Your task to perform on an android device: move an email to a new category in the gmail app Image 0: 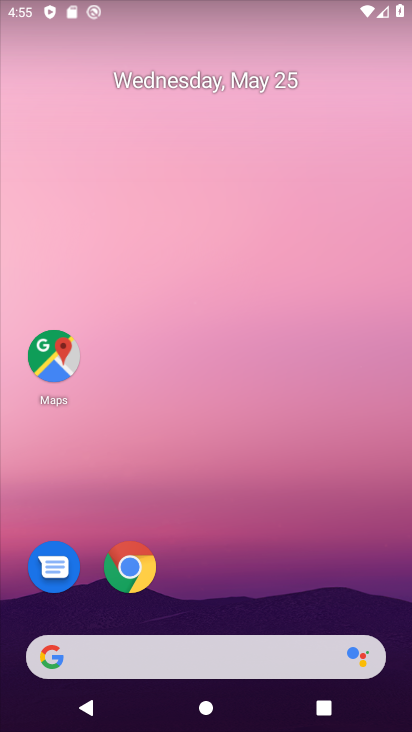
Step 0: drag from (289, 554) to (241, 72)
Your task to perform on an android device: move an email to a new category in the gmail app Image 1: 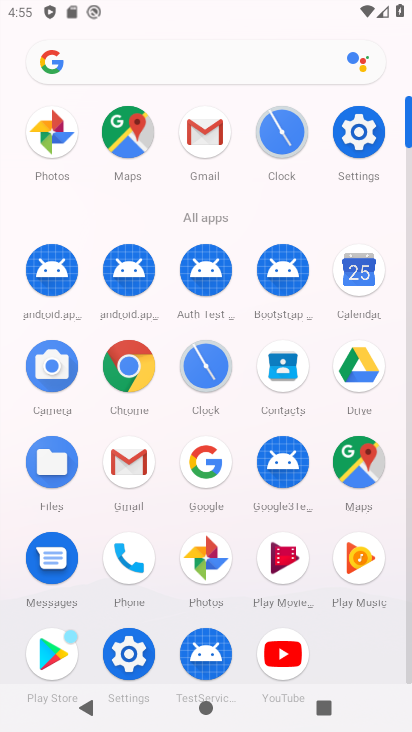
Step 1: drag from (5, 575) to (18, 247)
Your task to perform on an android device: move an email to a new category in the gmail app Image 2: 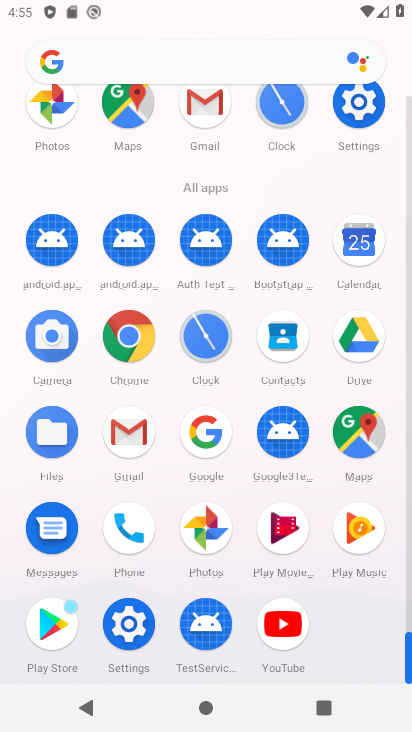
Step 2: drag from (7, 604) to (22, 320)
Your task to perform on an android device: move an email to a new category in the gmail app Image 3: 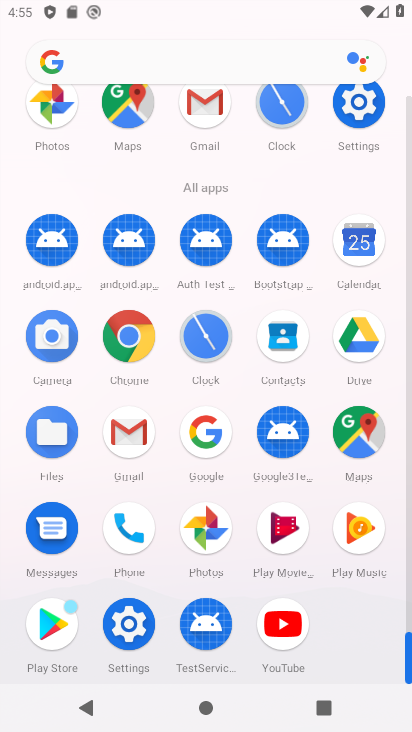
Step 3: drag from (3, 591) to (10, 270)
Your task to perform on an android device: move an email to a new category in the gmail app Image 4: 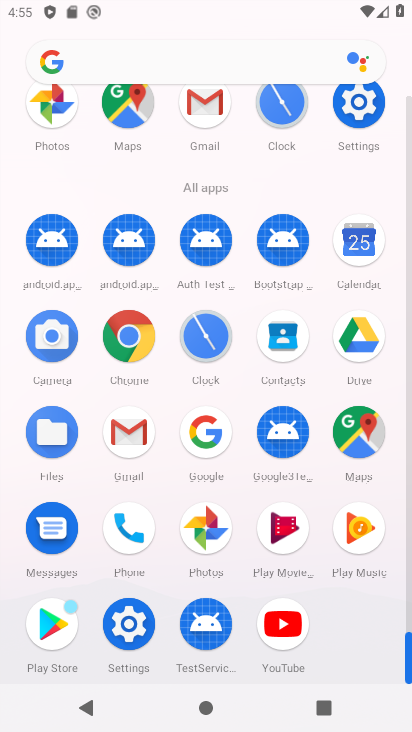
Step 4: click (134, 429)
Your task to perform on an android device: move an email to a new category in the gmail app Image 5: 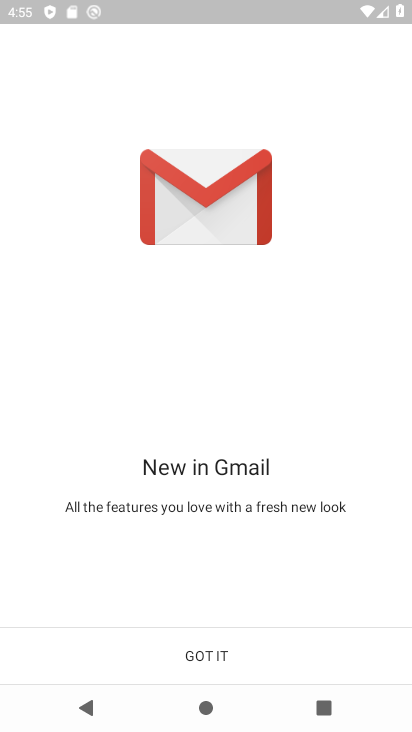
Step 5: click (178, 660)
Your task to perform on an android device: move an email to a new category in the gmail app Image 6: 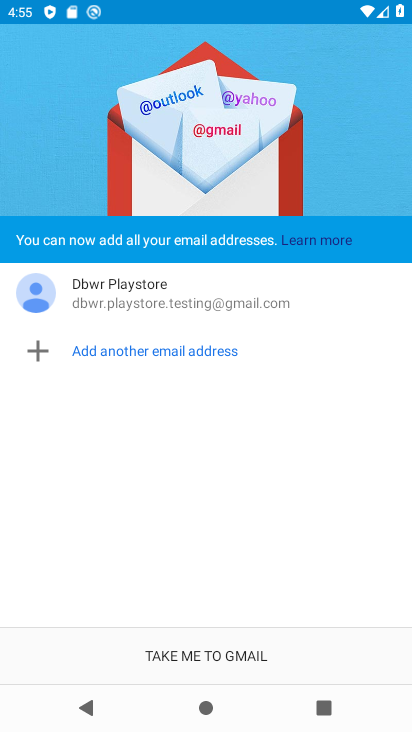
Step 6: click (187, 652)
Your task to perform on an android device: move an email to a new category in the gmail app Image 7: 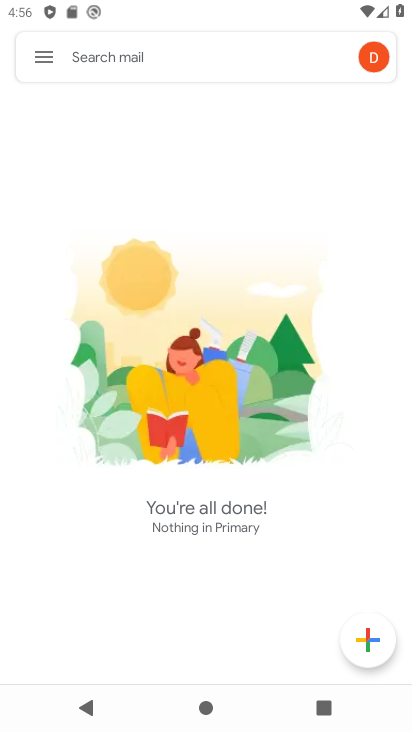
Step 7: click (45, 45)
Your task to perform on an android device: move an email to a new category in the gmail app Image 8: 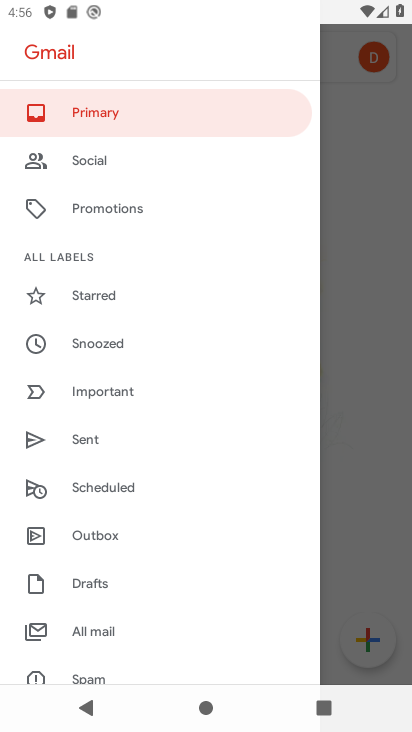
Step 8: drag from (175, 548) to (189, 119)
Your task to perform on an android device: move an email to a new category in the gmail app Image 9: 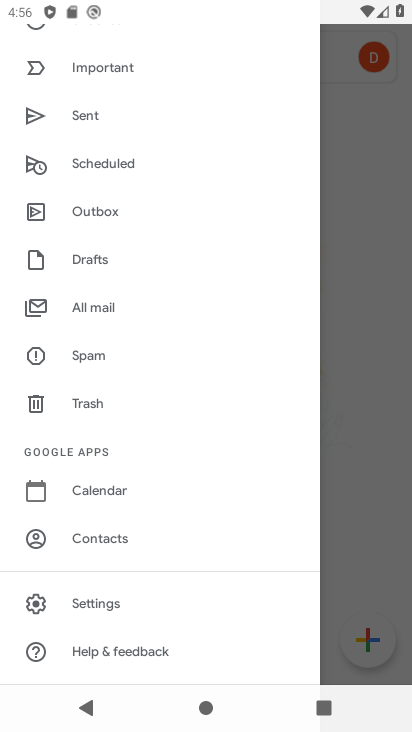
Step 9: drag from (128, 490) to (158, 179)
Your task to perform on an android device: move an email to a new category in the gmail app Image 10: 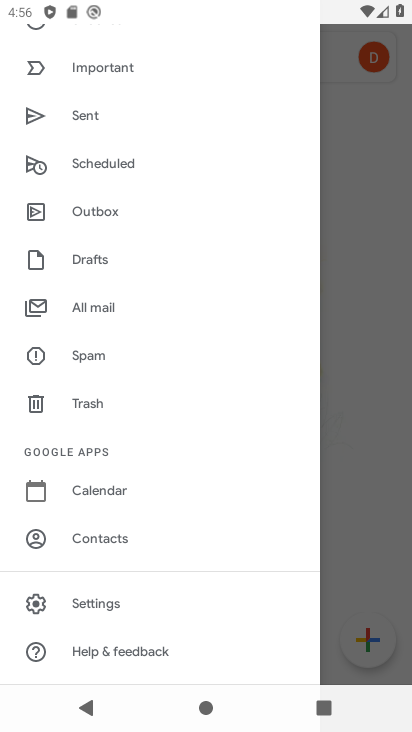
Step 10: drag from (143, 547) to (152, 240)
Your task to perform on an android device: move an email to a new category in the gmail app Image 11: 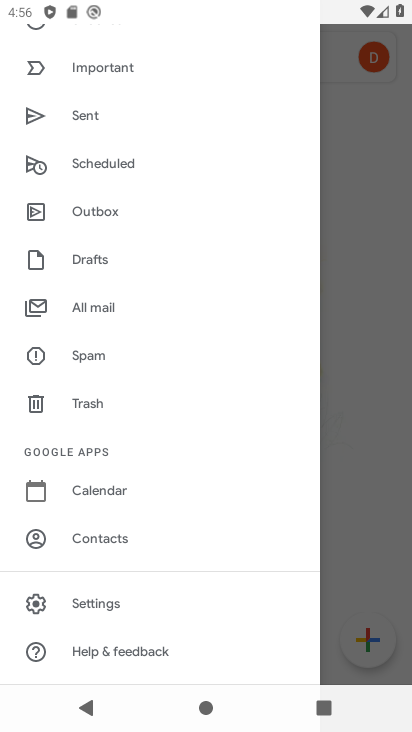
Step 11: click (113, 305)
Your task to perform on an android device: move an email to a new category in the gmail app Image 12: 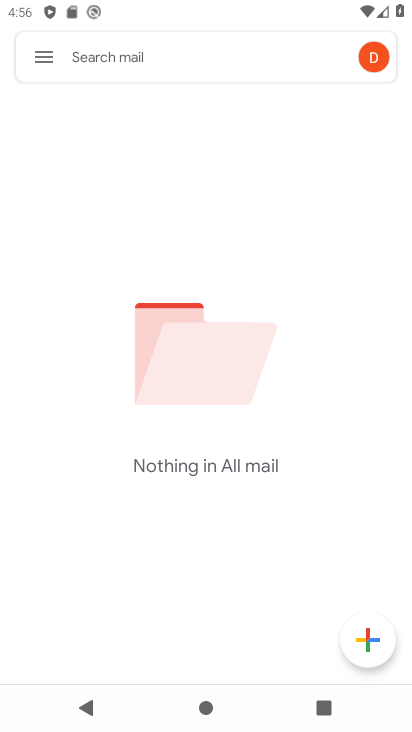
Step 12: click (45, 49)
Your task to perform on an android device: move an email to a new category in the gmail app Image 13: 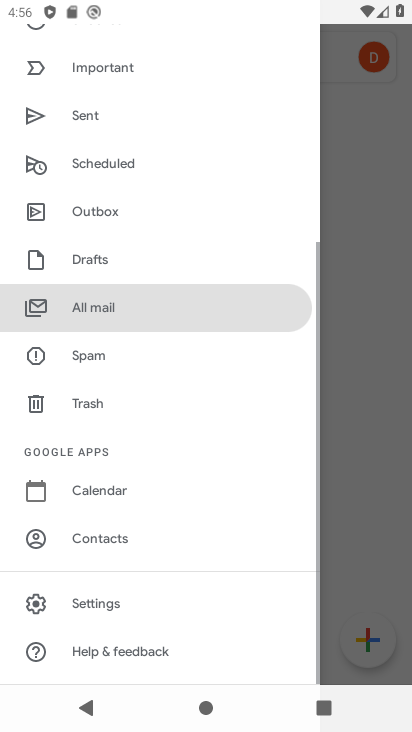
Step 13: drag from (142, 103) to (173, 511)
Your task to perform on an android device: move an email to a new category in the gmail app Image 14: 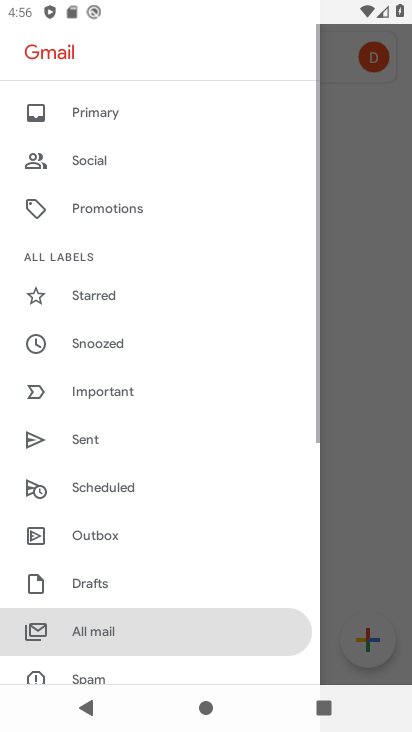
Step 14: click (121, 115)
Your task to perform on an android device: move an email to a new category in the gmail app Image 15: 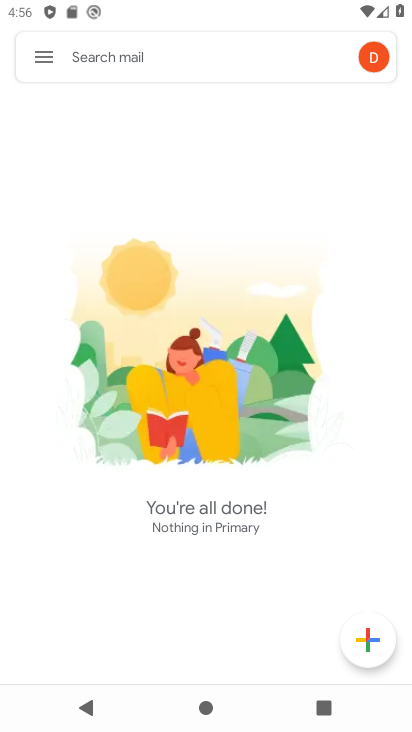
Step 15: click (49, 47)
Your task to perform on an android device: move an email to a new category in the gmail app Image 16: 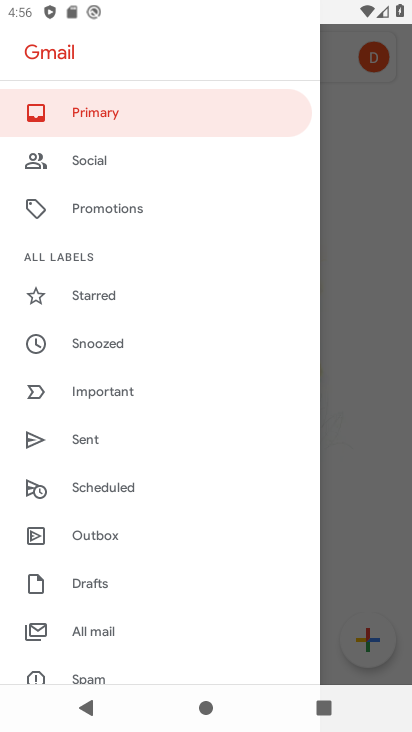
Step 16: click (125, 284)
Your task to perform on an android device: move an email to a new category in the gmail app Image 17: 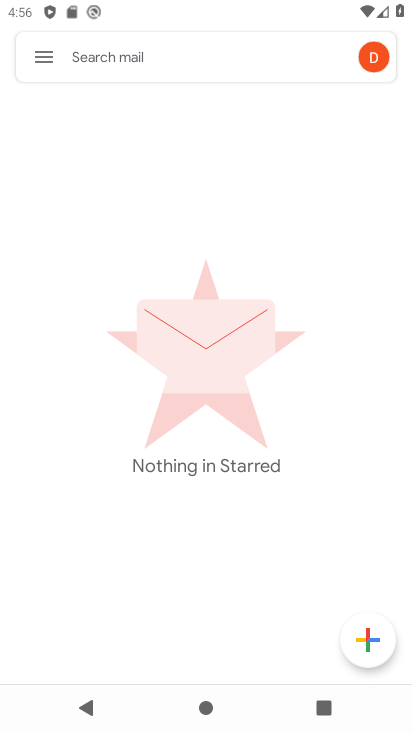
Step 17: click (36, 52)
Your task to perform on an android device: move an email to a new category in the gmail app Image 18: 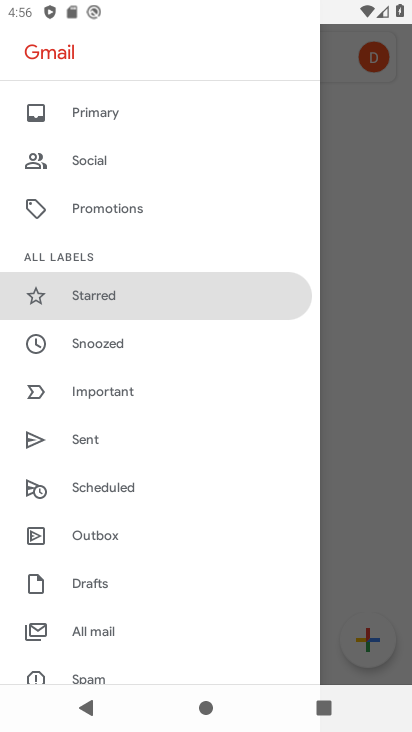
Step 18: click (102, 622)
Your task to perform on an android device: move an email to a new category in the gmail app Image 19: 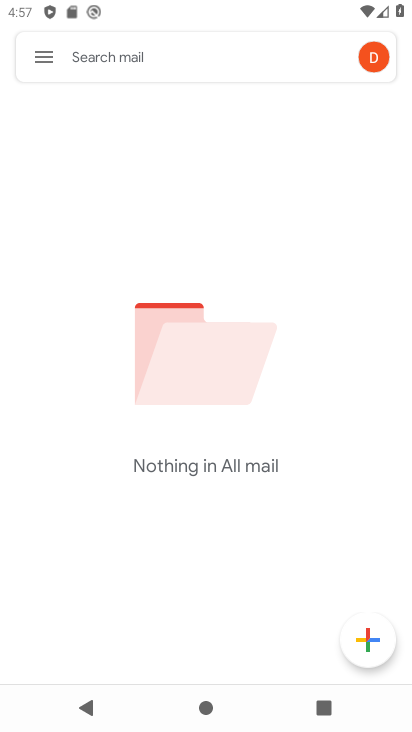
Step 19: task complete